Your task to perform on an android device: open app "Adobe Acrobat Reader: Edit PDF" Image 0: 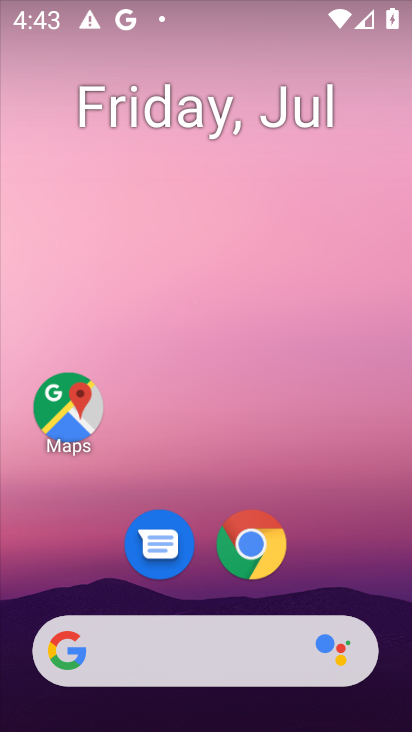
Step 0: drag from (264, 553) to (211, 74)
Your task to perform on an android device: open app "Adobe Acrobat Reader: Edit PDF" Image 1: 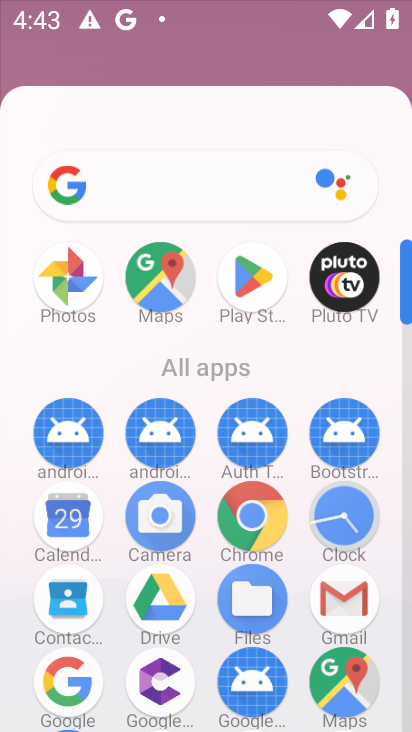
Step 1: drag from (203, 454) to (162, 185)
Your task to perform on an android device: open app "Adobe Acrobat Reader: Edit PDF" Image 2: 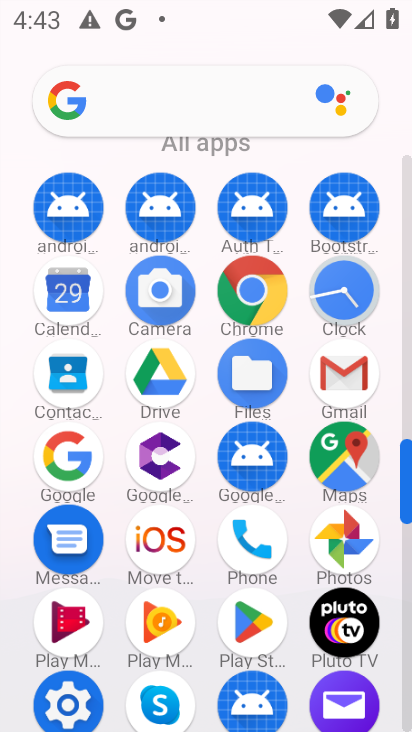
Step 2: drag from (179, 648) to (172, 257)
Your task to perform on an android device: open app "Adobe Acrobat Reader: Edit PDF" Image 3: 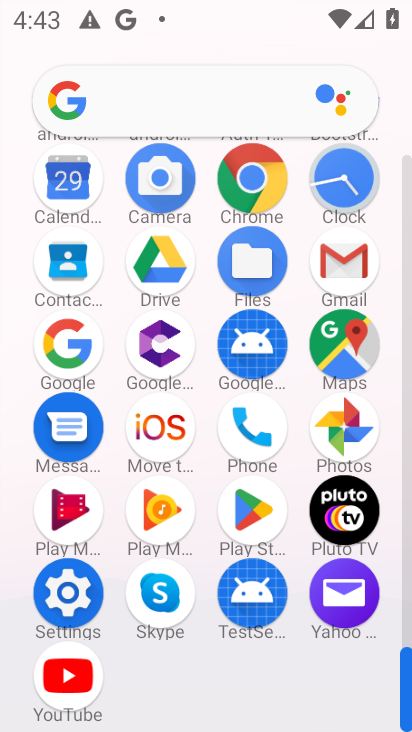
Step 3: drag from (185, 463) to (179, 342)
Your task to perform on an android device: open app "Adobe Acrobat Reader: Edit PDF" Image 4: 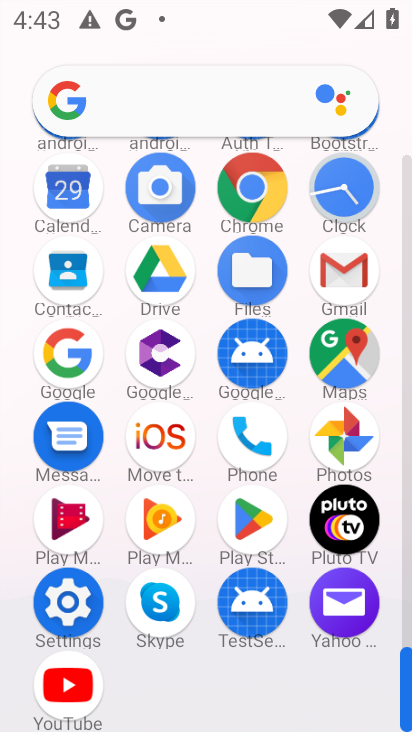
Step 4: drag from (208, 307) to (205, 556)
Your task to perform on an android device: open app "Adobe Acrobat Reader: Edit PDF" Image 5: 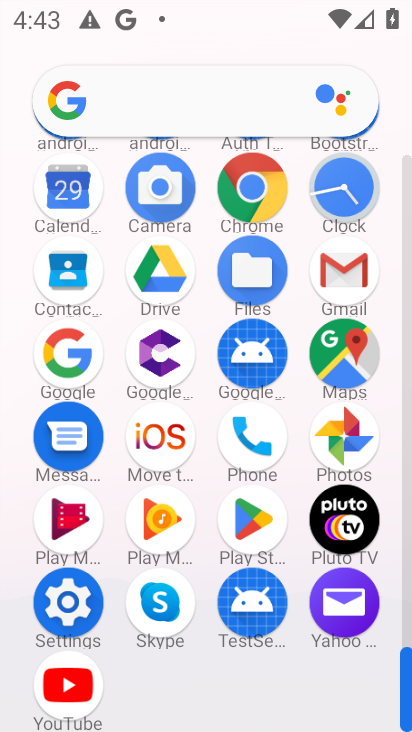
Step 5: drag from (154, 273) to (172, 561)
Your task to perform on an android device: open app "Adobe Acrobat Reader: Edit PDF" Image 6: 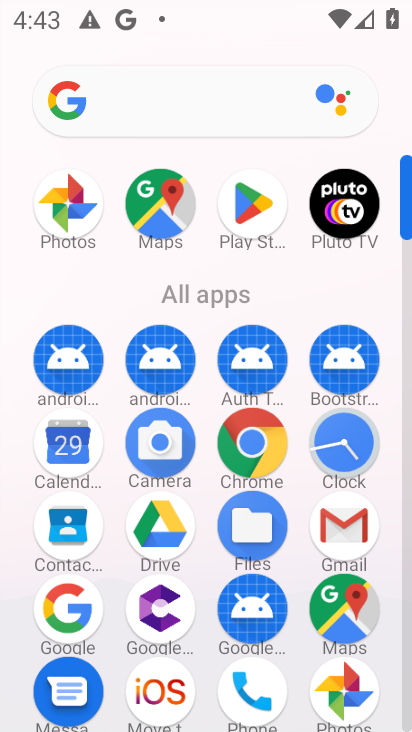
Step 6: drag from (155, 289) to (176, 508)
Your task to perform on an android device: open app "Adobe Acrobat Reader: Edit PDF" Image 7: 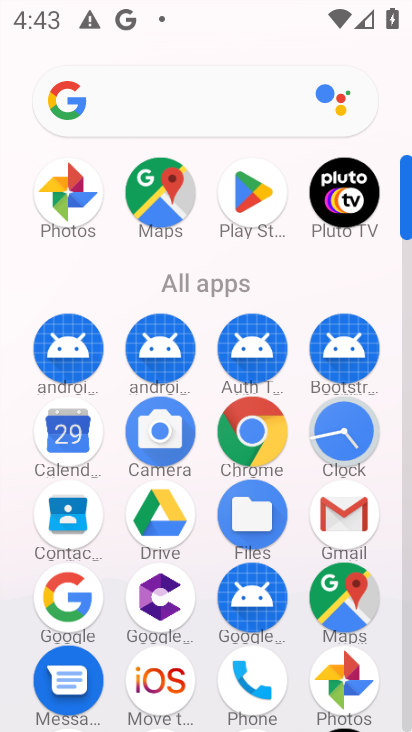
Step 7: click (234, 199)
Your task to perform on an android device: open app "Adobe Acrobat Reader: Edit PDF" Image 8: 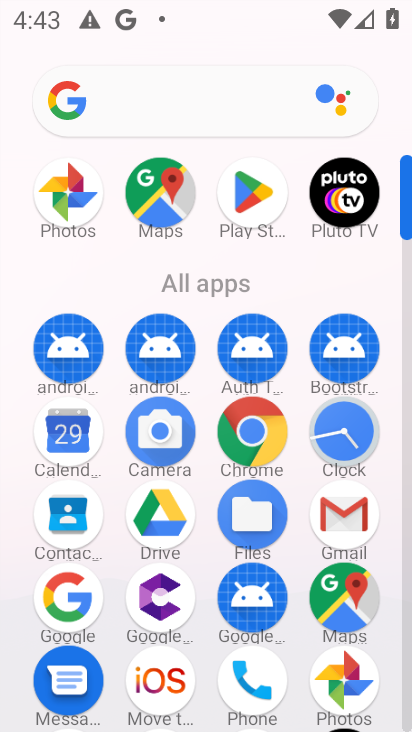
Step 8: click (237, 197)
Your task to perform on an android device: open app "Adobe Acrobat Reader: Edit PDF" Image 9: 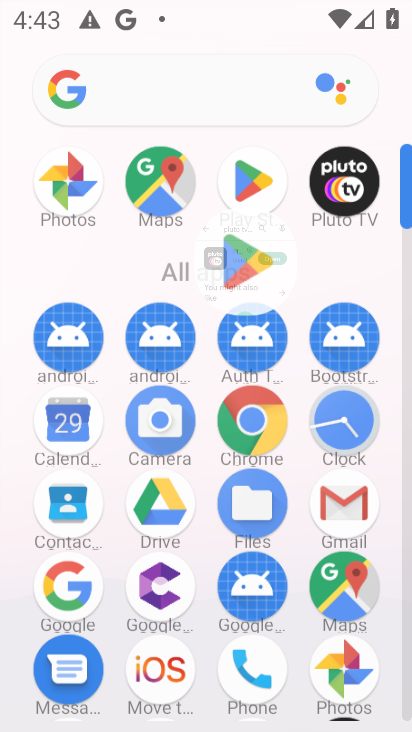
Step 9: click (238, 195)
Your task to perform on an android device: open app "Adobe Acrobat Reader: Edit PDF" Image 10: 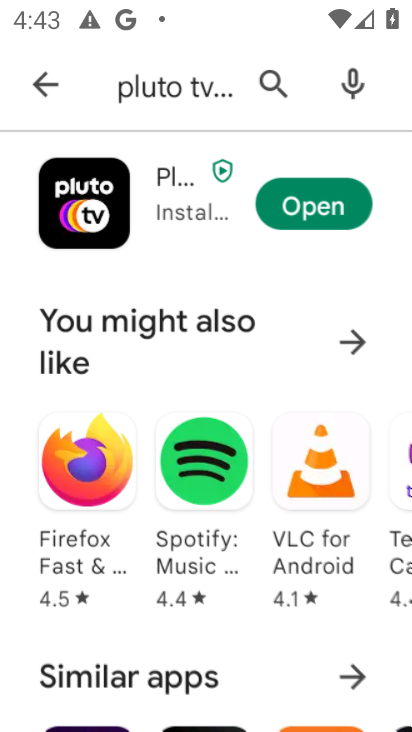
Step 10: click (238, 195)
Your task to perform on an android device: open app "Adobe Acrobat Reader: Edit PDF" Image 11: 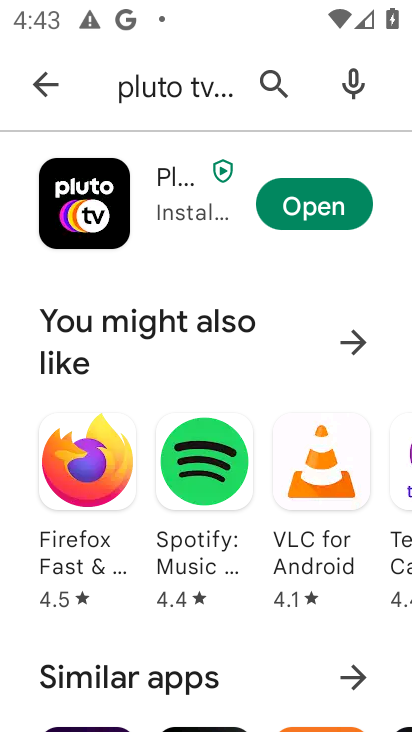
Step 11: click (238, 195)
Your task to perform on an android device: open app "Adobe Acrobat Reader: Edit PDF" Image 12: 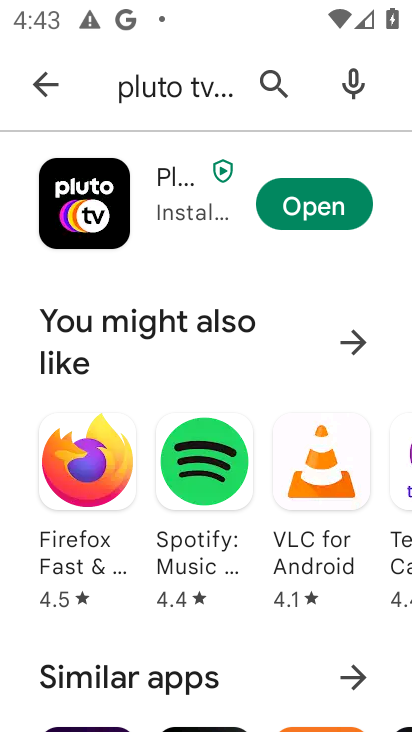
Step 12: click (238, 191)
Your task to perform on an android device: open app "Adobe Acrobat Reader: Edit PDF" Image 13: 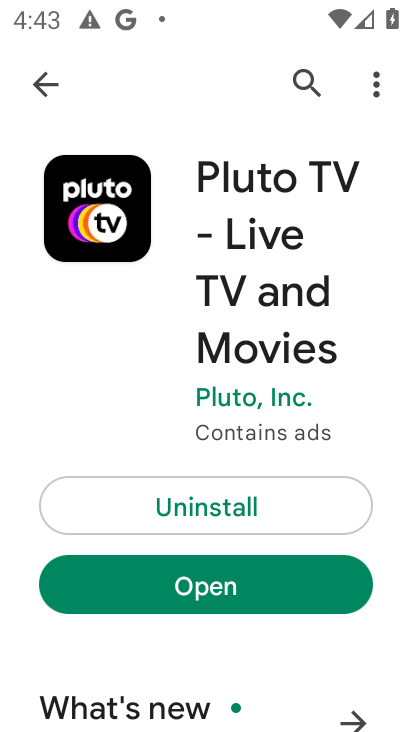
Step 13: click (45, 83)
Your task to perform on an android device: open app "Adobe Acrobat Reader: Edit PDF" Image 14: 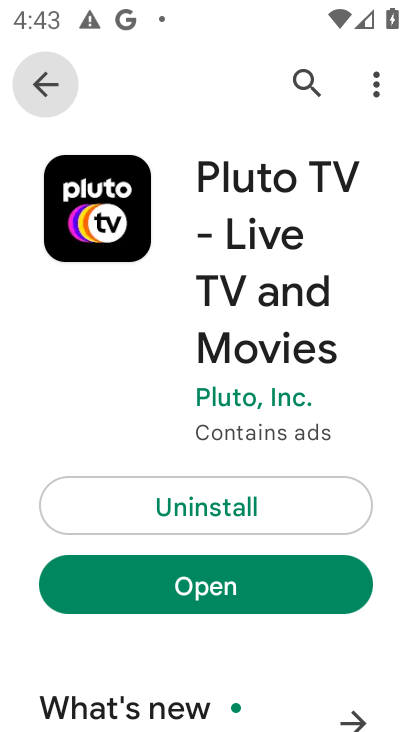
Step 14: click (46, 82)
Your task to perform on an android device: open app "Adobe Acrobat Reader: Edit PDF" Image 15: 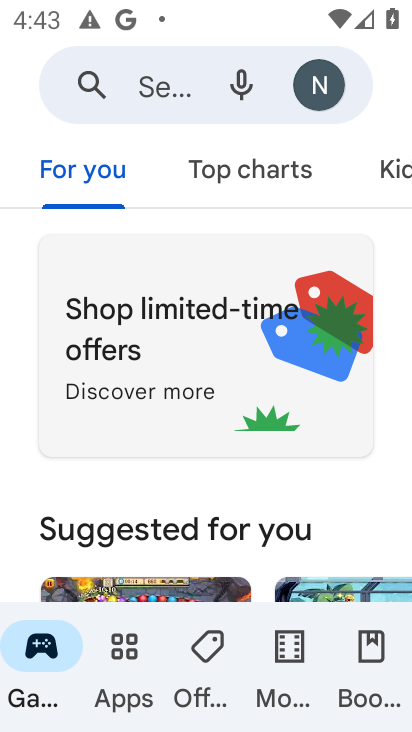
Step 15: click (133, 88)
Your task to perform on an android device: open app "Adobe Acrobat Reader: Edit PDF" Image 16: 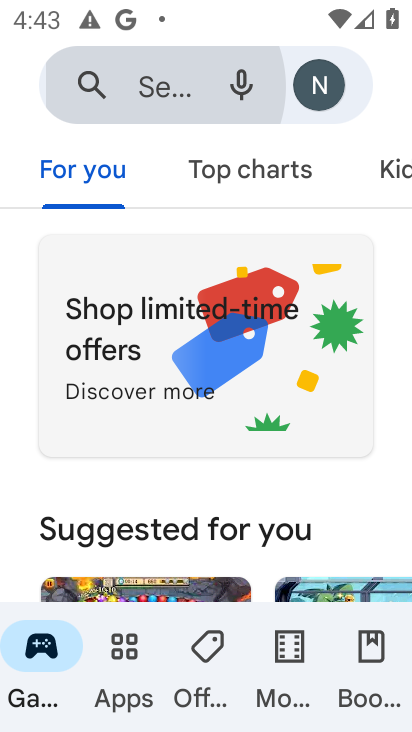
Step 16: click (133, 86)
Your task to perform on an android device: open app "Adobe Acrobat Reader: Edit PDF" Image 17: 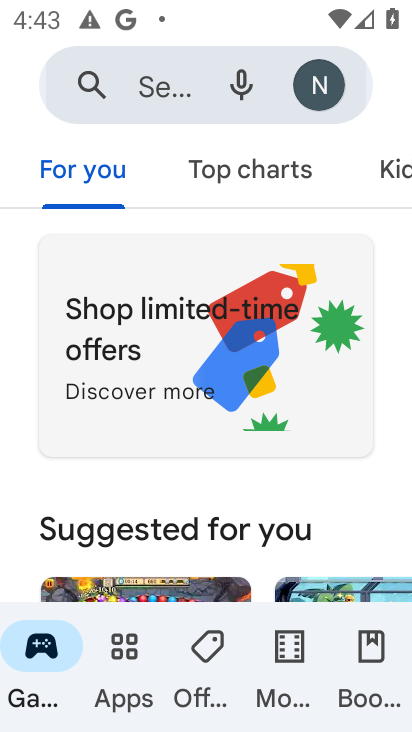
Step 17: click (133, 86)
Your task to perform on an android device: open app "Adobe Acrobat Reader: Edit PDF" Image 18: 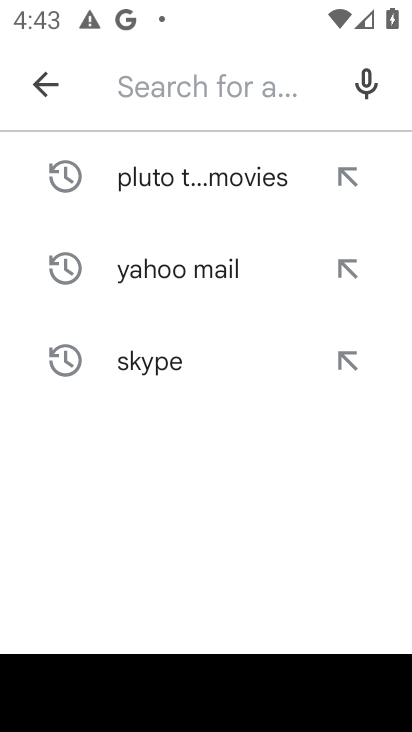
Step 18: drag from (202, 731) to (377, 728)
Your task to perform on an android device: open app "Adobe Acrobat Reader: Edit PDF" Image 19: 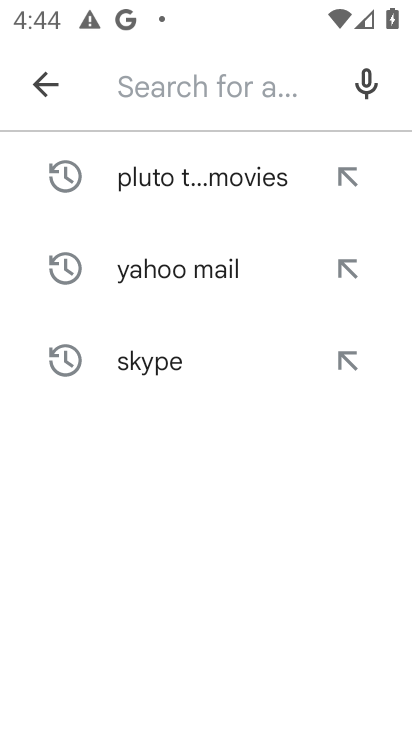
Step 19: type "Adobe Acrobat Reader: Edit PDF""
Your task to perform on an android device: open app "Adobe Acrobat Reader: Edit PDF" Image 20: 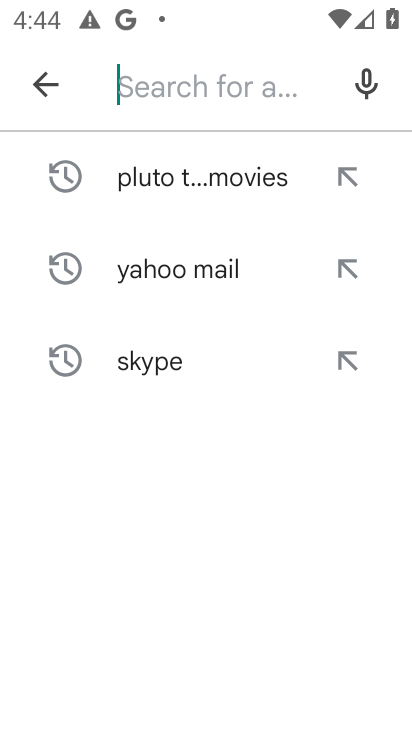
Step 20: click (377, 728)
Your task to perform on an android device: open app "Adobe Acrobat Reader: Edit PDF" Image 21: 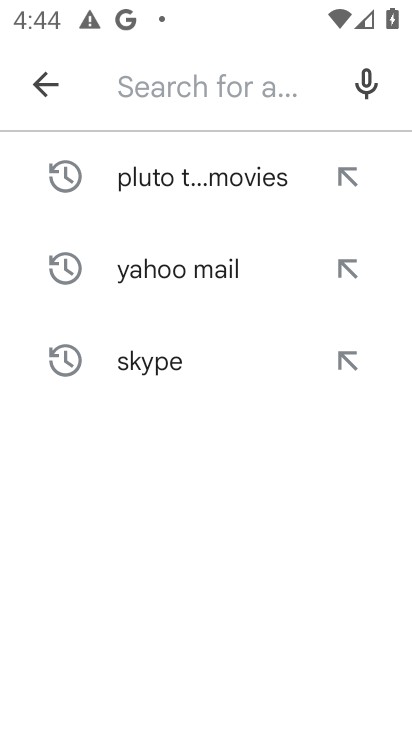
Step 21: type "Adobe Reader :Edit"
Your task to perform on an android device: open app "Adobe Acrobat Reader: Edit PDF" Image 22: 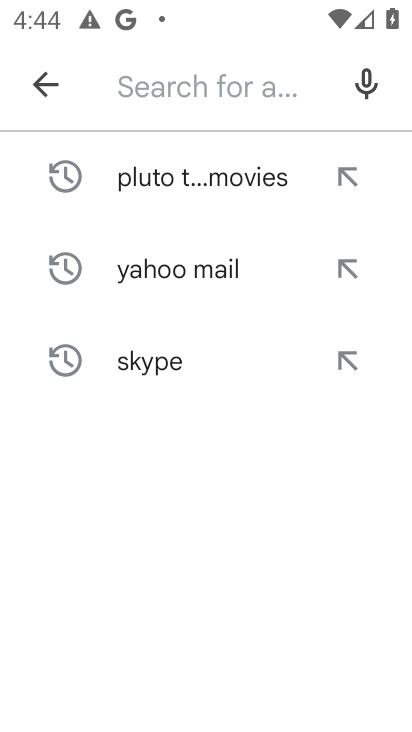
Step 22: drag from (377, 728) to (365, 272)
Your task to perform on an android device: open app "Adobe Acrobat Reader: Edit PDF" Image 23: 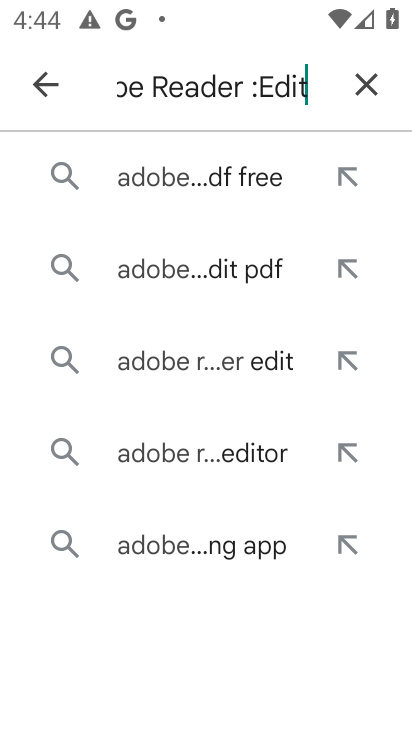
Step 23: click (150, 187)
Your task to perform on an android device: open app "Adobe Acrobat Reader: Edit PDF" Image 24: 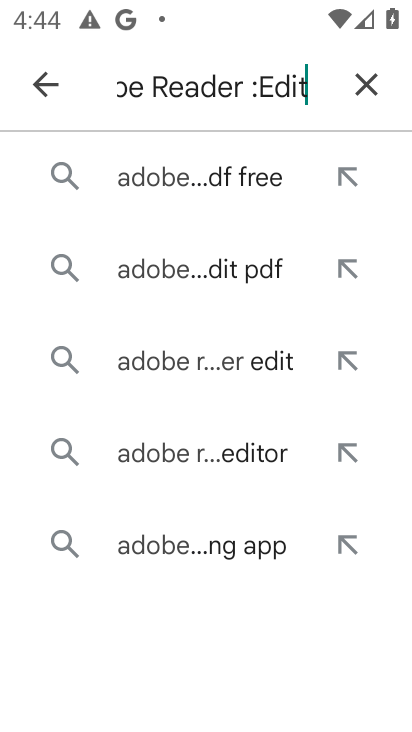
Step 24: click (150, 187)
Your task to perform on an android device: open app "Adobe Acrobat Reader: Edit PDF" Image 25: 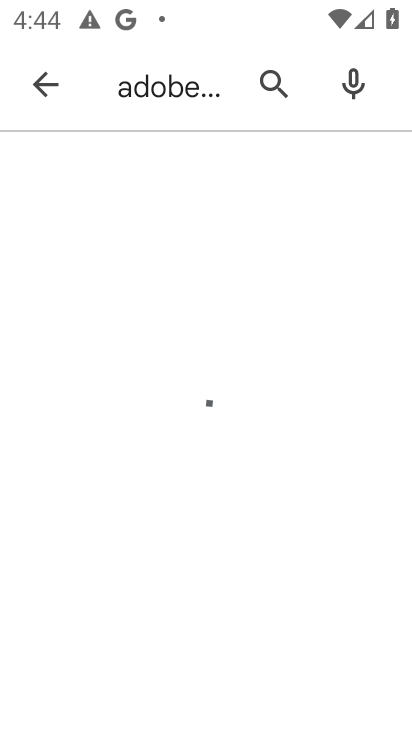
Step 25: click (150, 187)
Your task to perform on an android device: open app "Adobe Acrobat Reader: Edit PDF" Image 26: 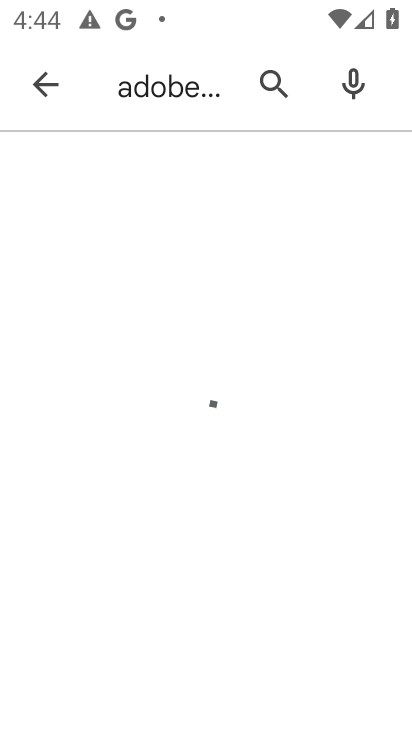
Step 26: click (150, 187)
Your task to perform on an android device: open app "Adobe Acrobat Reader: Edit PDF" Image 27: 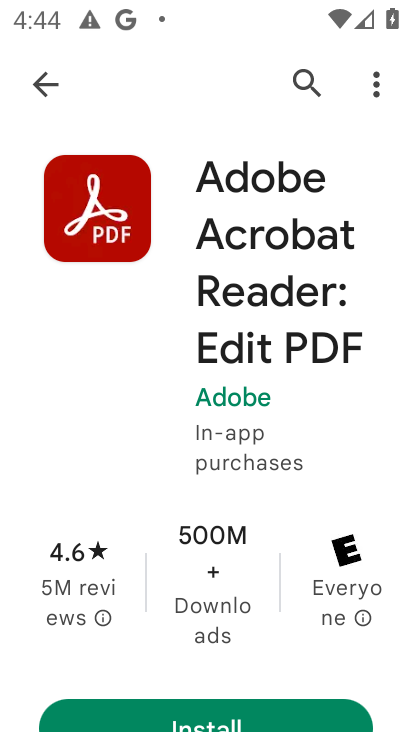
Step 27: click (225, 714)
Your task to perform on an android device: open app "Adobe Acrobat Reader: Edit PDF" Image 28: 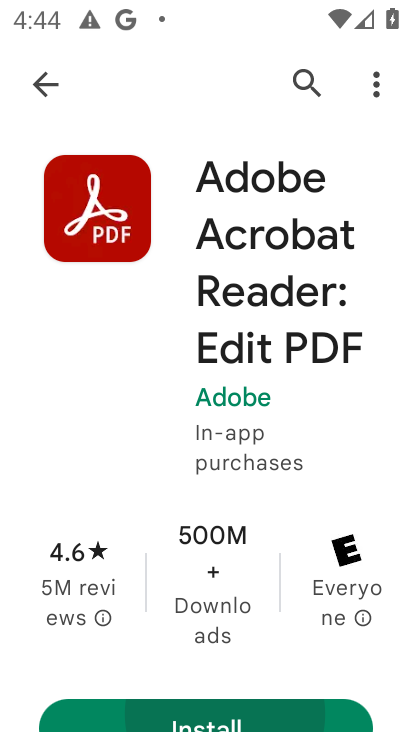
Step 28: click (225, 714)
Your task to perform on an android device: open app "Adobe Acrobat Reader: Edit PDF" Image 29: 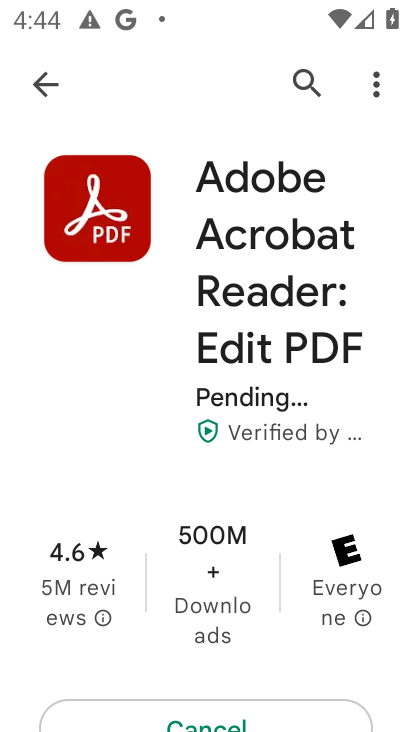
Step 29: click (225, 714)
Your task to perform on an android device: open app "Adobe Acrobat Reader: Edit PDF" Image 30: 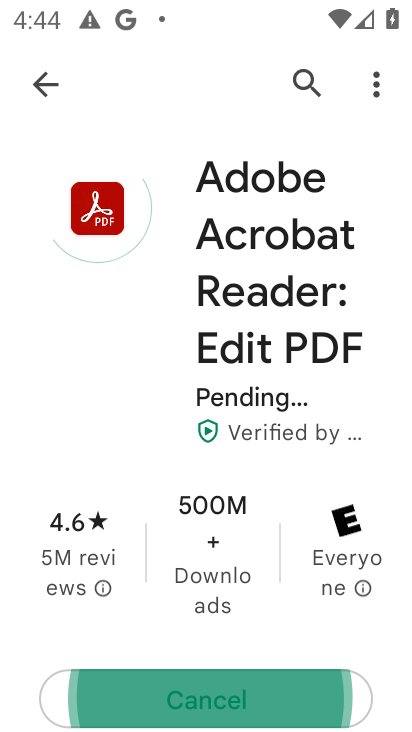
Step 30: click (225, 714)
Your task to perform on an android device: open app "Adobe Acrobat Reader: Edit PDF" Image 31: 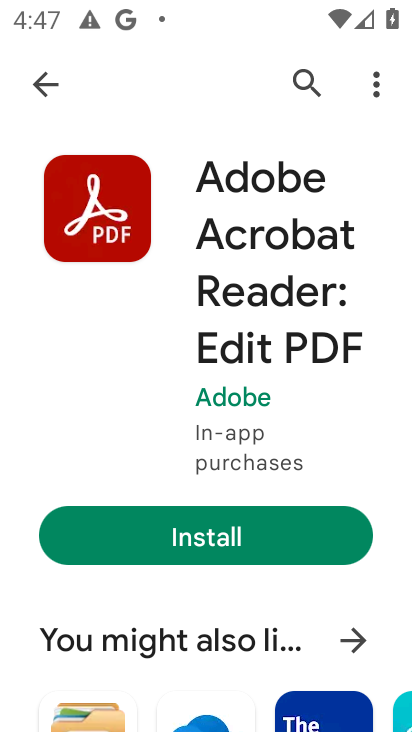
Step 31: click (180, 539)
Your task to perform on an android device: open app "Adobe Acrobat Reader: Edit PDF" Image 32: 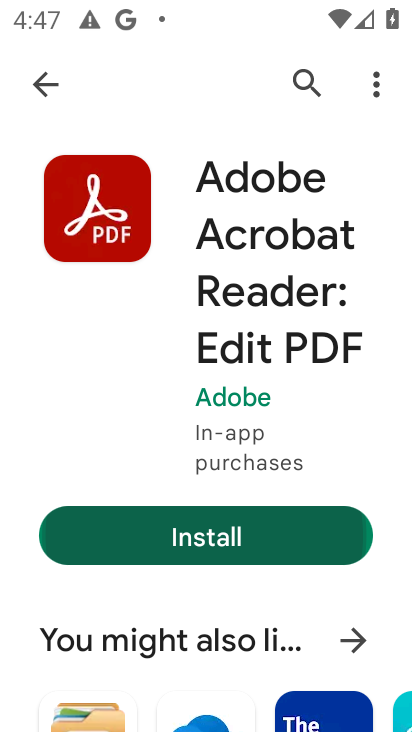
Step 32: click (180, 539)
Your task to perform on an android device: open app "Adobe Acrobat Reader: Edit PDF" Image 33: 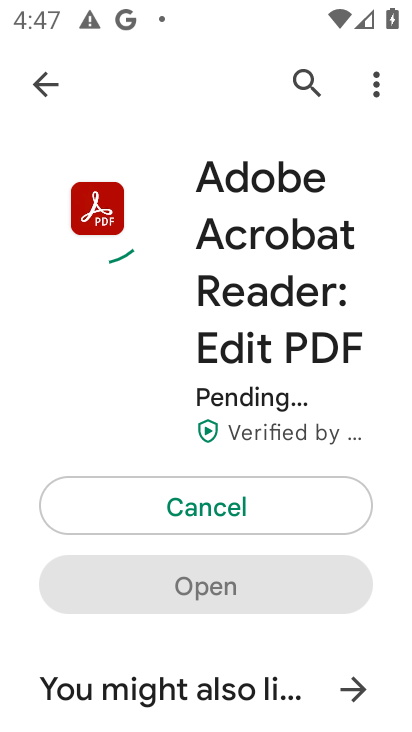
Step 33: task complete